Your task to perform on an android device: Go to Google maps Image 0: 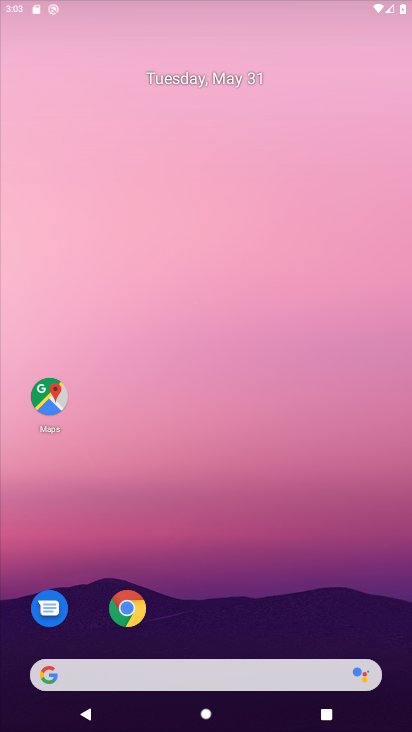
Step 0: drag from (229, 605) to (223, 37)
Your task to perform on an android device: Go to Google maps Image 1: 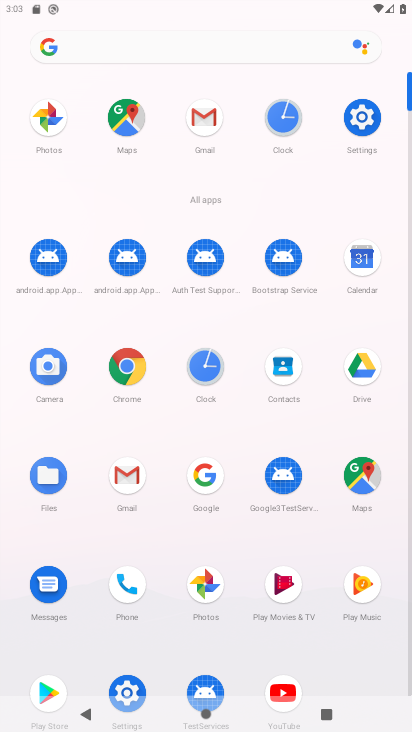
Step 1: click (363, 468)
Your task to perform on an android device: Go to Google maps Image 2: 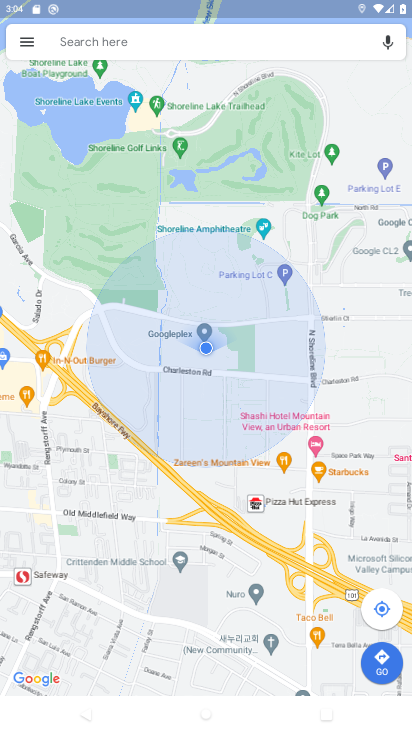
Step 2: task complete